Your task to perform on an android device: Go to Wikipedia Image 0: 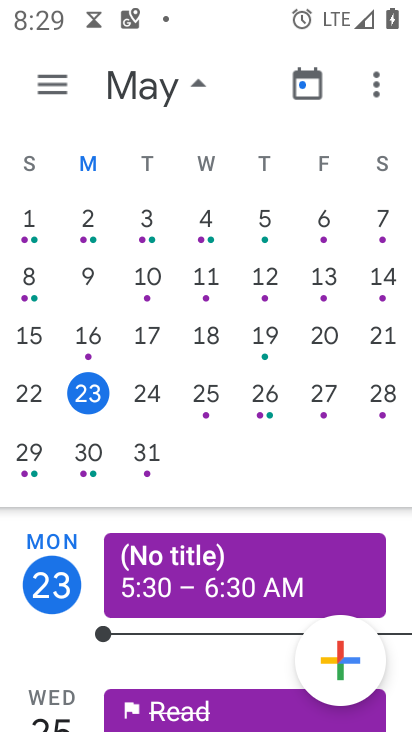
Step 0: press home button
Your task to perform on an android device: Go to Wikipedia Image 1: 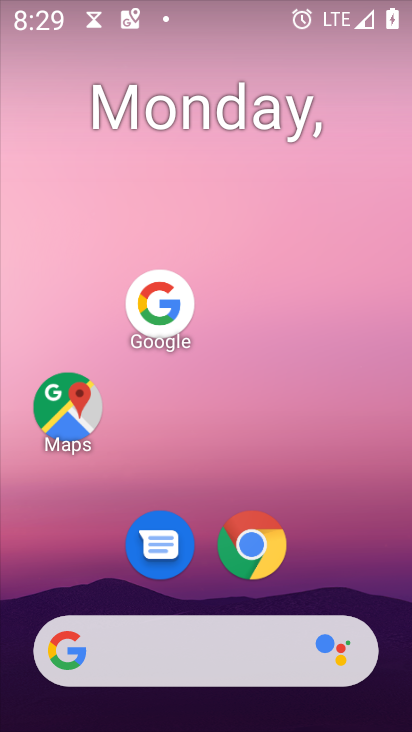
Step 1: click (247, 532)
Your task to perform on an android device: Go to Wikipedia Image 2: 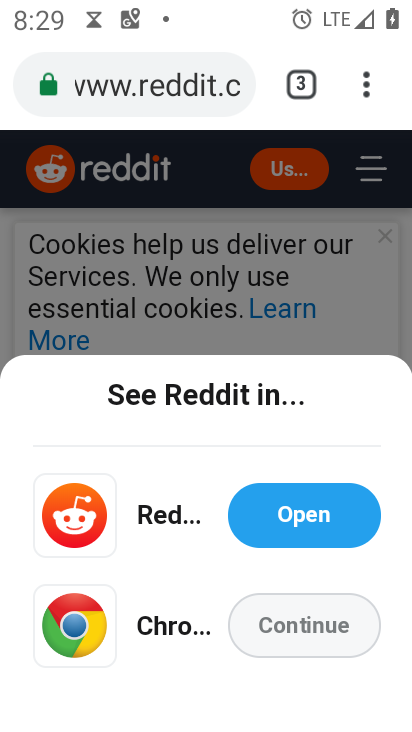
Step 2: drag from (367, 81) to (257, 159)
Your task to perform on an android device: Go to Wikipedia Image 3: 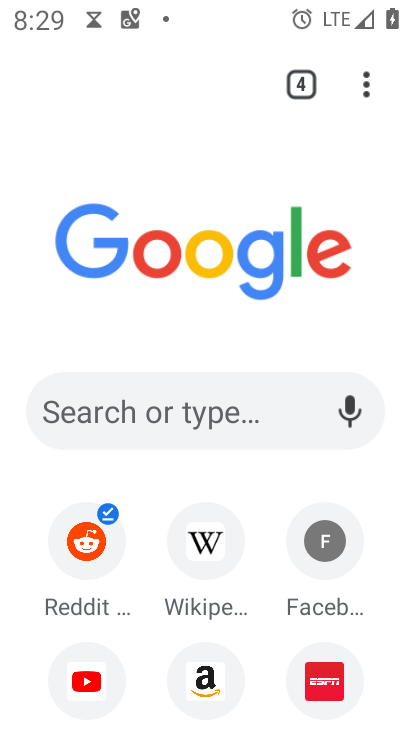
Step 3: click (204, 539)
Your task to perform on an android device: Go to Wikipedia Image 4: 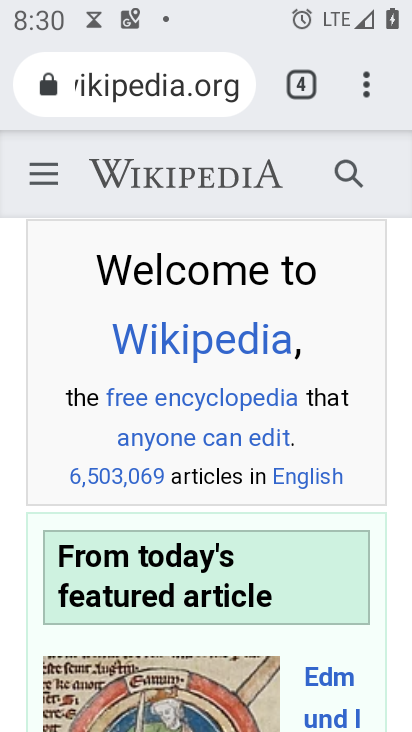
Step 4: task complete